Your task to perform on an android device: What is the news today? Image 0: 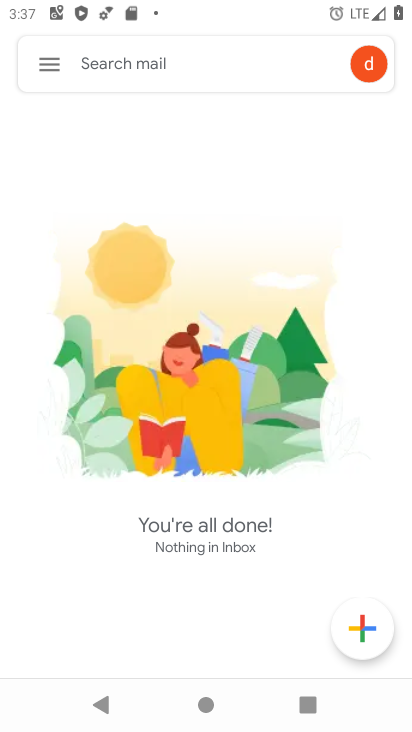
Step 0: press home button
Your task to perform on an android device: What is the news today? Image 1: 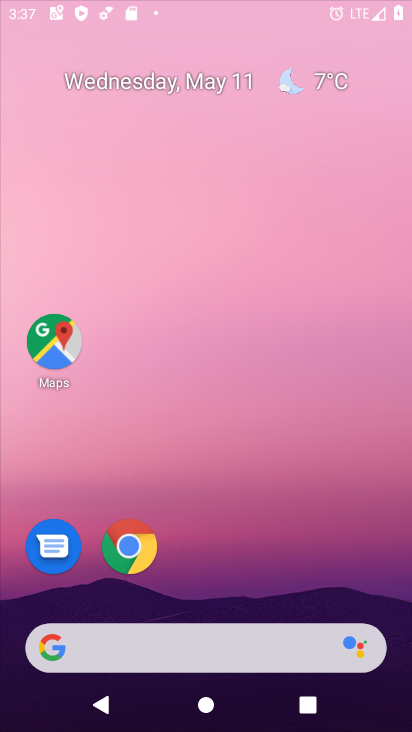
Step 1: drag from (209, 648) to (261, 52)
Your task to perform on an android device: What is the news today? Image 2: 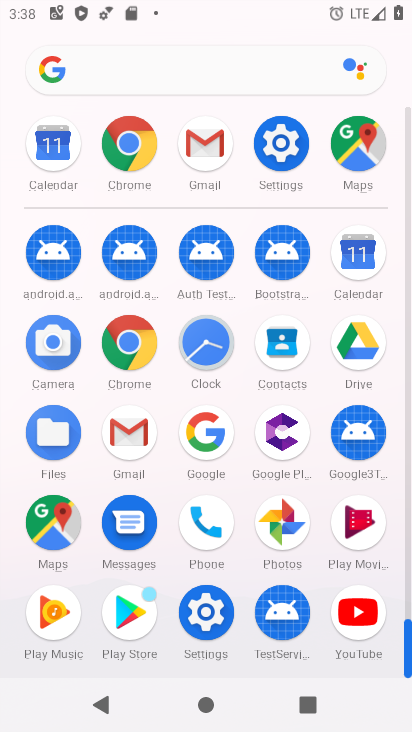
Step 2: click (137, 345)
Your task to perform on an android device: What is the news today? Image 3: 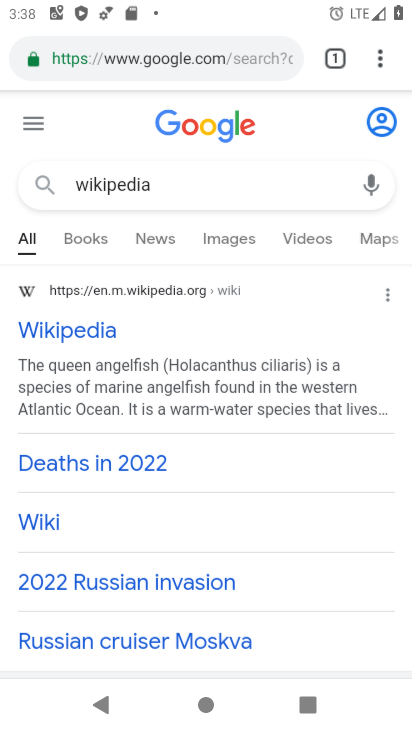
Step 3: click (246, 63)
Your task to perform on an android device: What is the news today? Image 4: 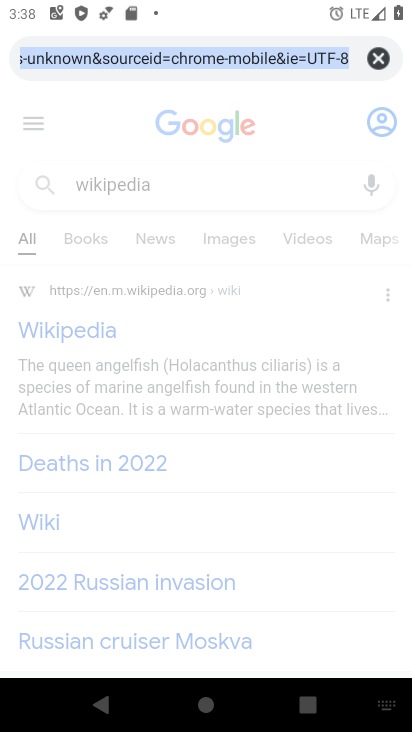
Step 4: click (386, 53)
Your task to perform on an android device: What is the news today? Image 5: 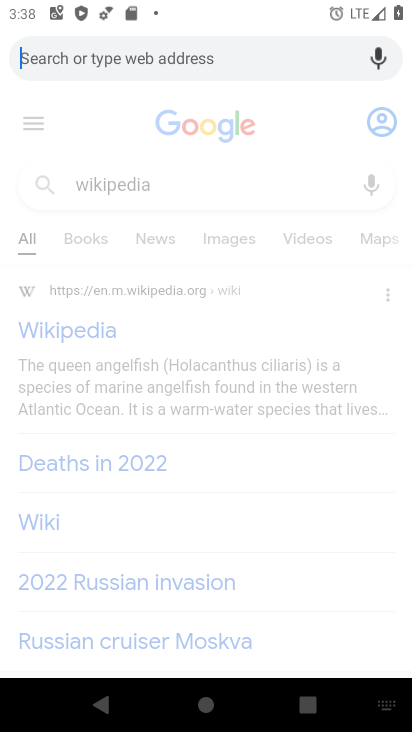
Step 5: type "news today"
Your task to perform on an android device: What is the news today? Image 6: 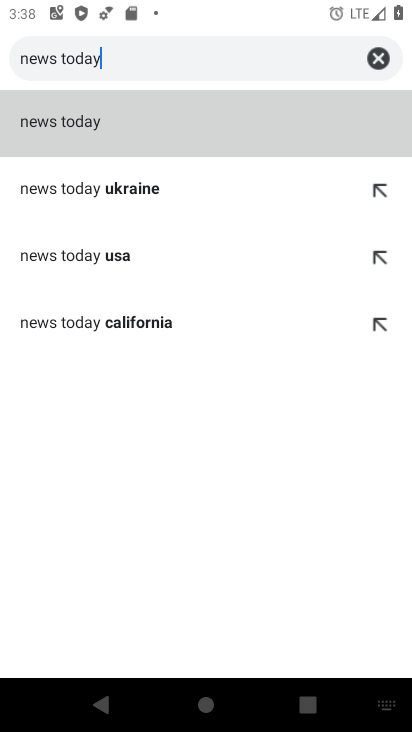
Step 6: click (60, 113)
Your task to perform on an android device: What is the news today? Image 7: 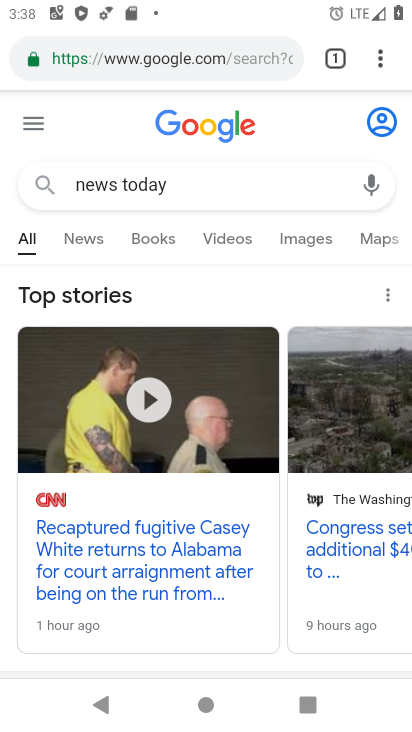
Step 7: task complete